Your task to perform on an android device: turn off wifi Image 0: 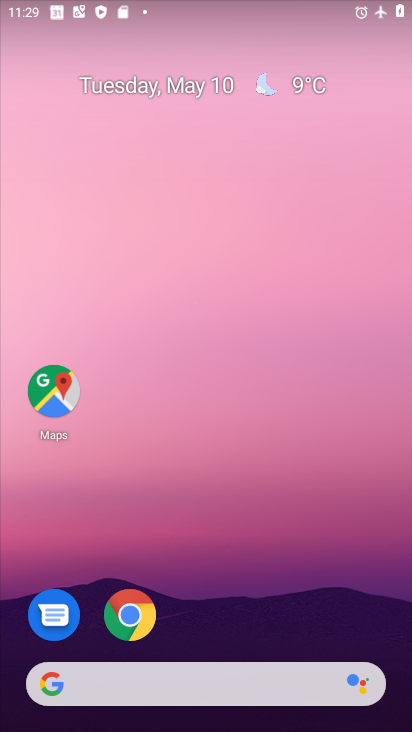
Step 0: press home button
Your task to perform on an android device: turn off wifi Image 1: 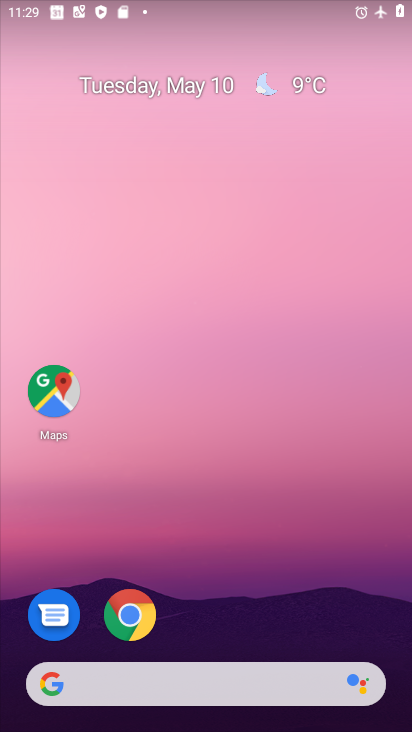
Step 1: task complete